Your task to perform on an android device: visit the assistant section in the google photos Image 0: 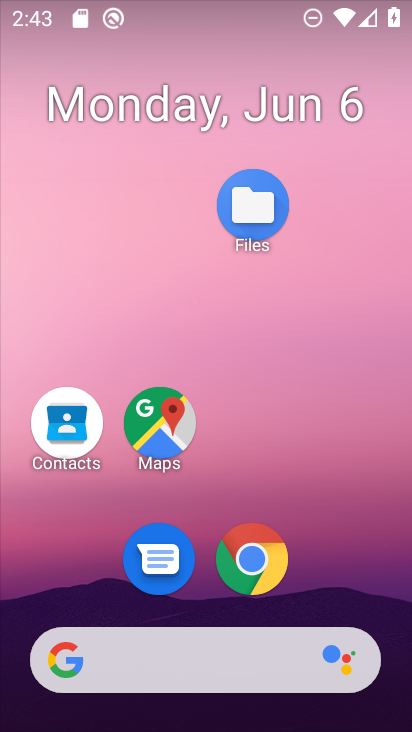
Step 0: drag from (274, 654) to (308, 153)
Your task to perform on an android device: visit the assistant section in the google photos Image 1: 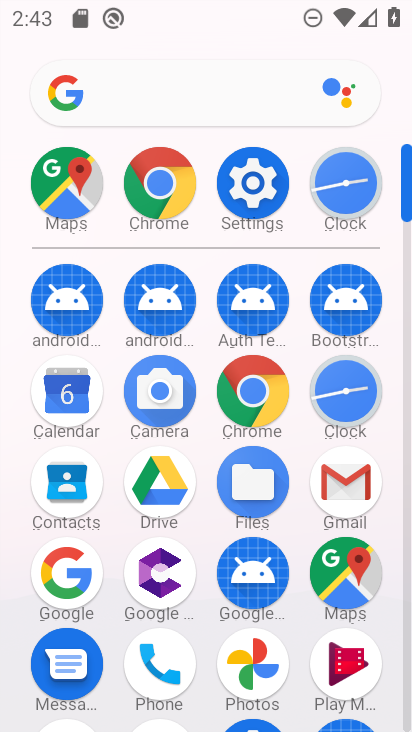
Step 1: click (277, 671)
Your task to perform on an android device: visit the assistant section in the google photos Image 2: 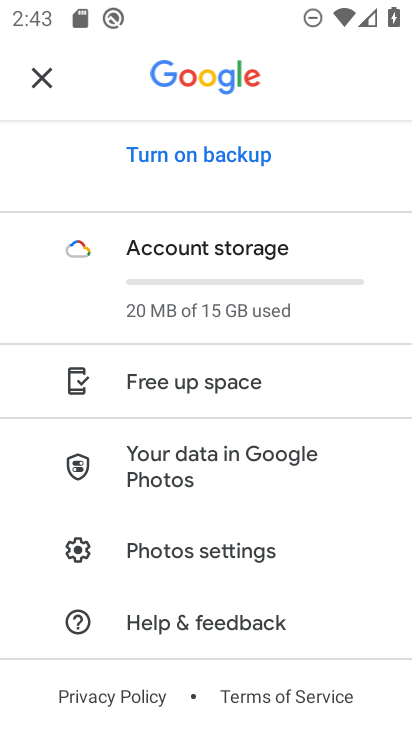
Step 2: drag from (199, 580) to (231, 289)
Your task to perform on an android device: visit the assistant section in the google photos Image 3: 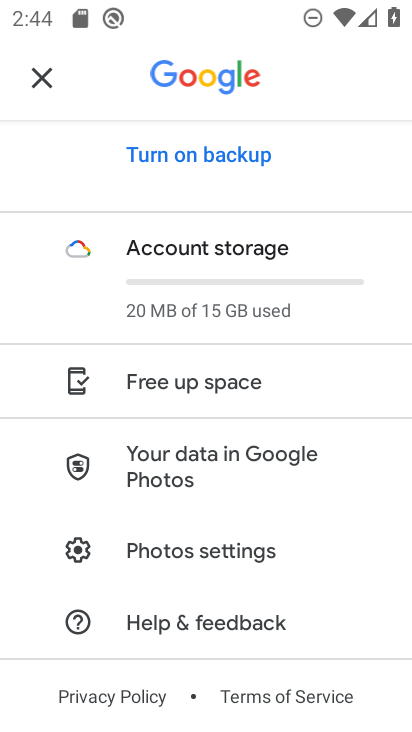
Step 3: click (53, 73)
Your task to perform on an android device: visit the assistant section in the google photos Image 4: 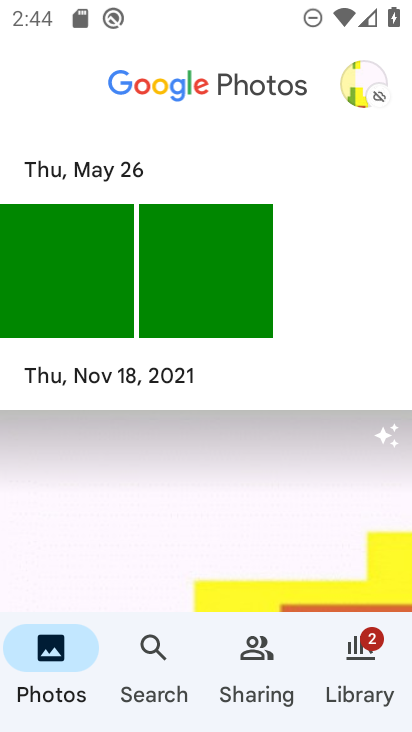
Step 4: task complete